Your task to perform on an android device: open wifi settings Image 0: 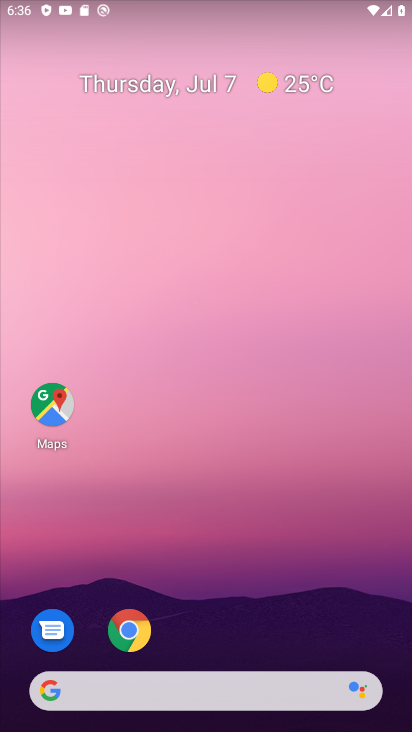
Step 0: drag from (242, 565) to (155, 37)
Your task to perform on an android device: open wifi settings Image 1: 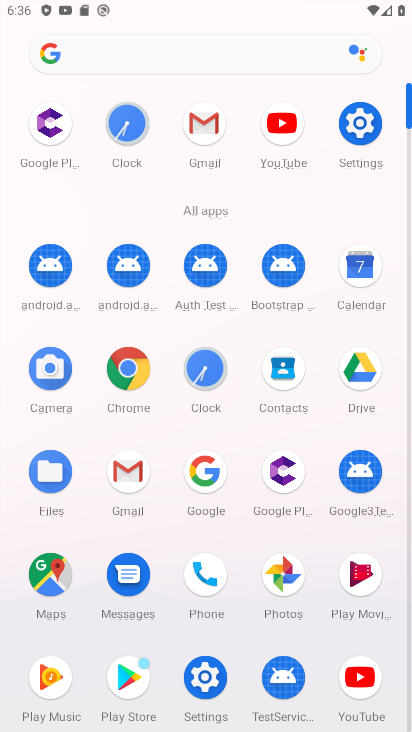
Step 1: click (363, 113)
Your task to perform on an android device: open wifi settings Image 2: 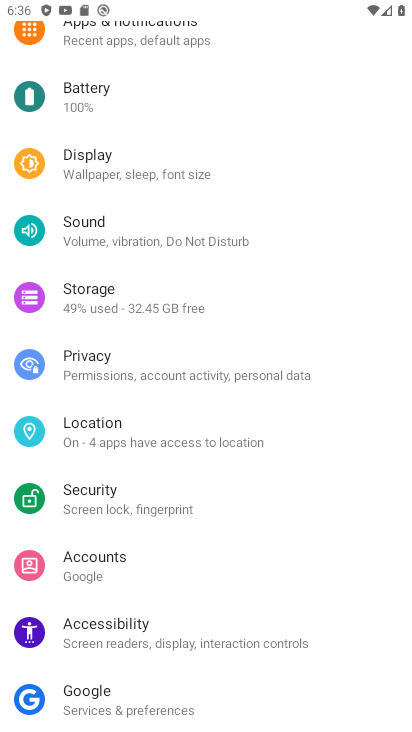
Step 2: drag from (229, 114) to (286, 549)
Your task to perform on an android device: open wifi settings Image 3: 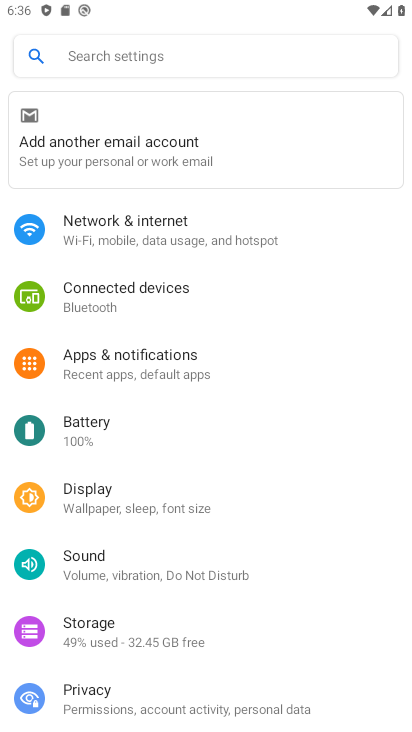
Step 3: click (165, 220)
Your task to perform on an android device: open wifi settings Image 4: 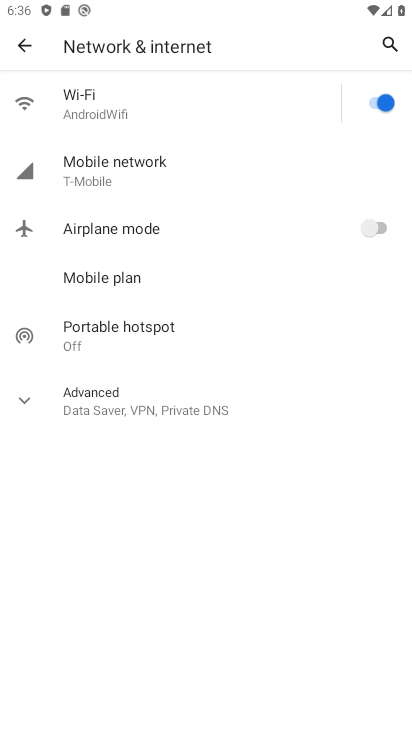
Step 4: click (124, 98)
Your task to perform on an android device: open wifi settings Image 5: 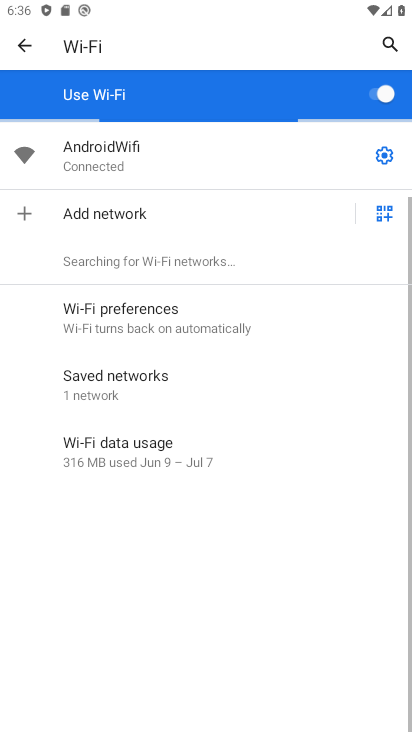
Step 5: task complete